Your task to perform on an android device: find photos in the google photos app Image 0: 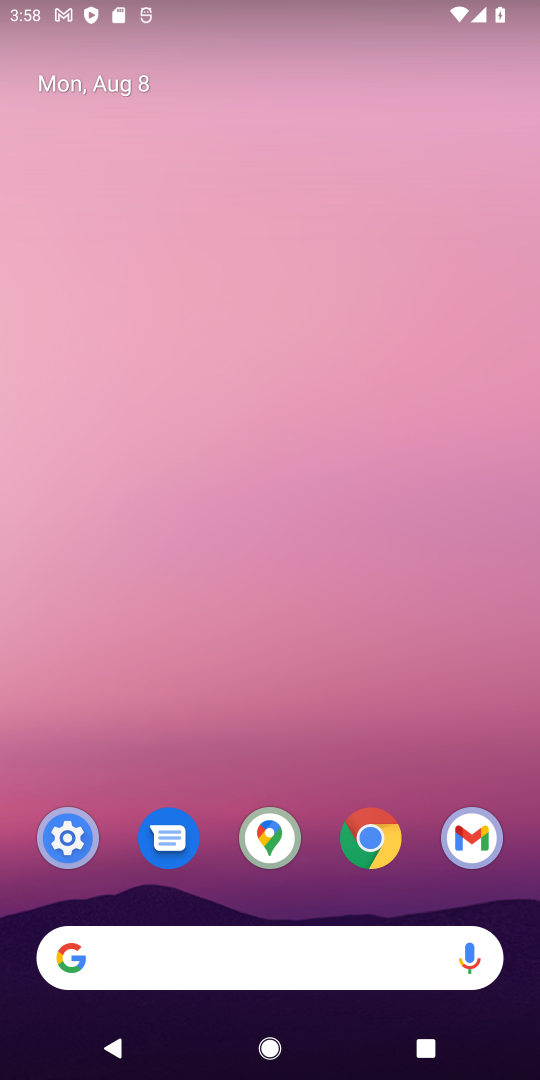
Step 0: drag from (314, 983) to (303, 483)
Your task to perform on an android device: find photos in the google photos app Image 1: 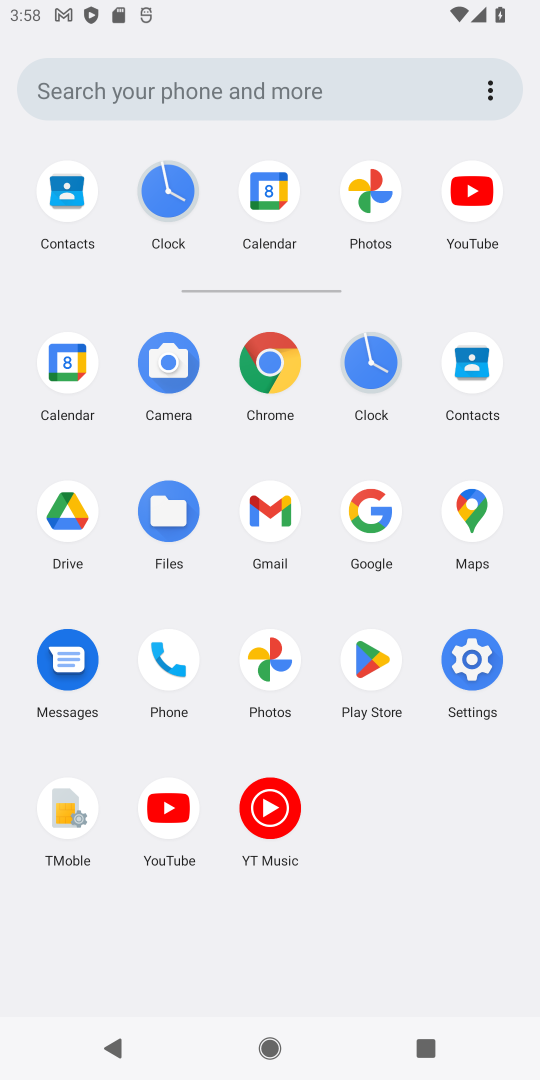
Step 1: click (375, 195)
Your task to perform on an android device: find photos in the google photos app Image 2: 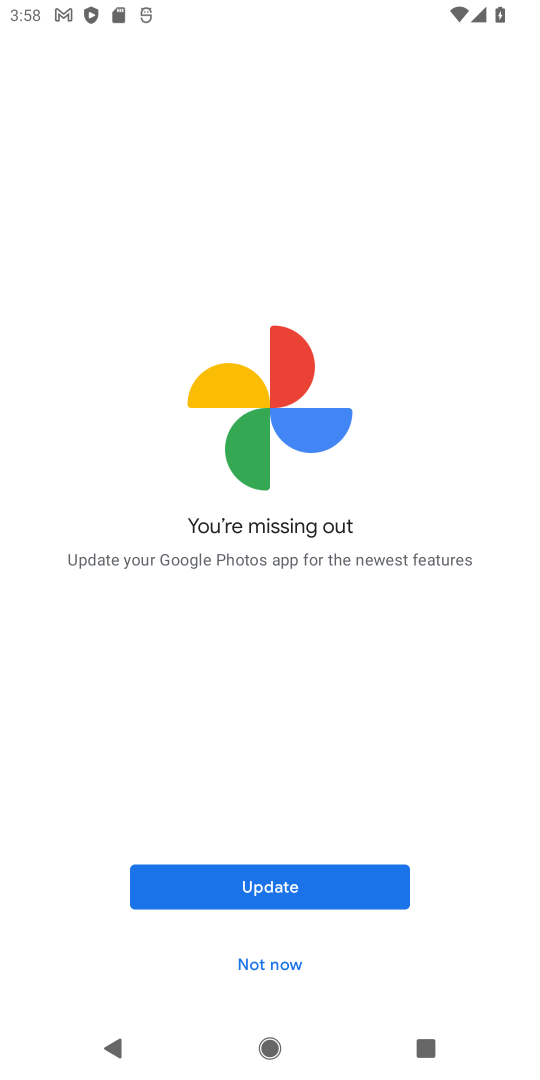
Step 2: click (278, 885)
Your task to perform on an android device: find photos in the google photos app Image 3: 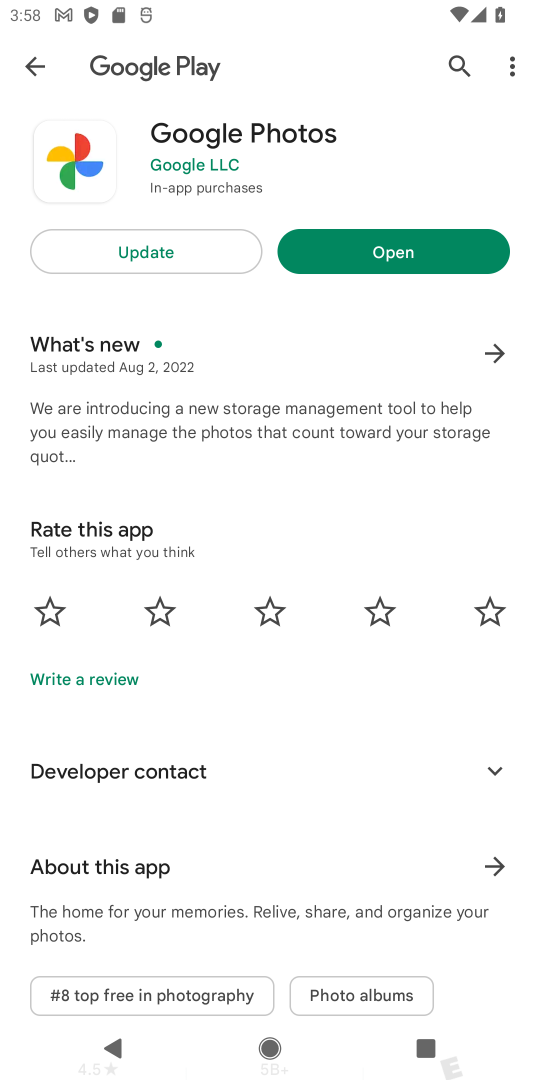
Step 3: click (143, 251)
Your task to perform on an android device: find photos in the google photos app Image 4: 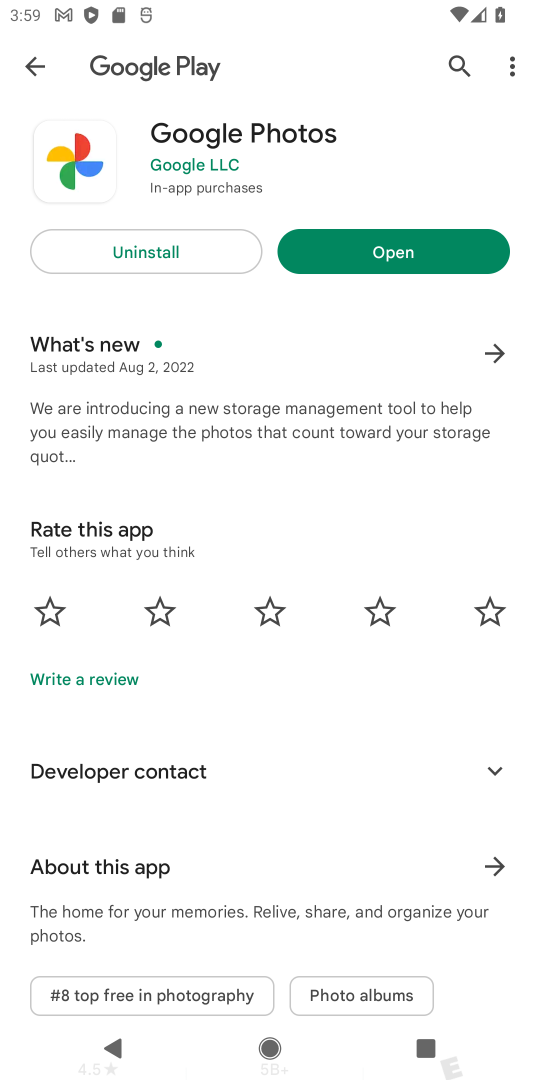
Step 4: click (397, 255)
Your task to perform on an android device: find photos in the google photos app Image 5: 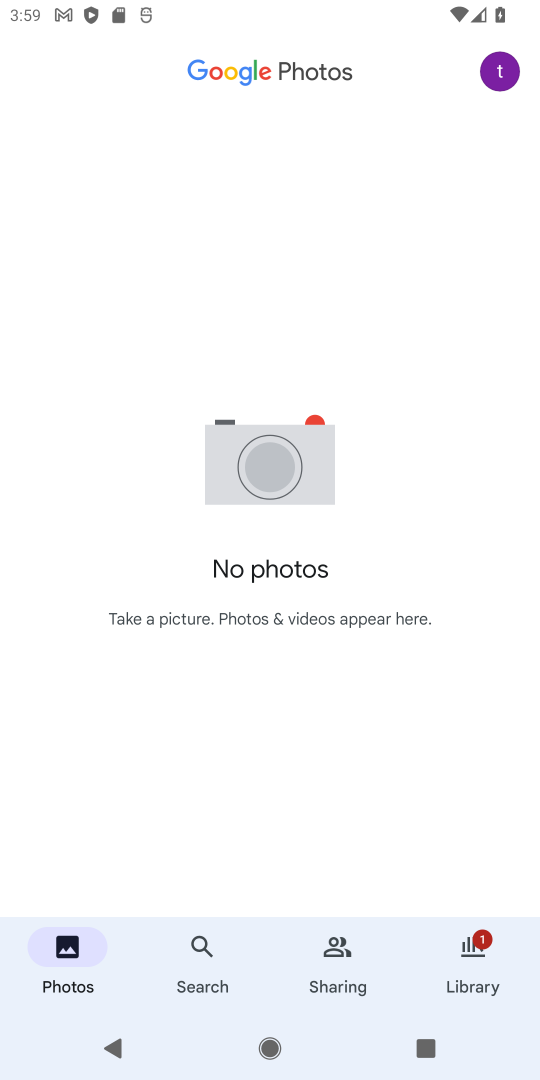
Step 5: click (202, 953)
Your task to perform on an android device: find photos in the google photos app Image 6: 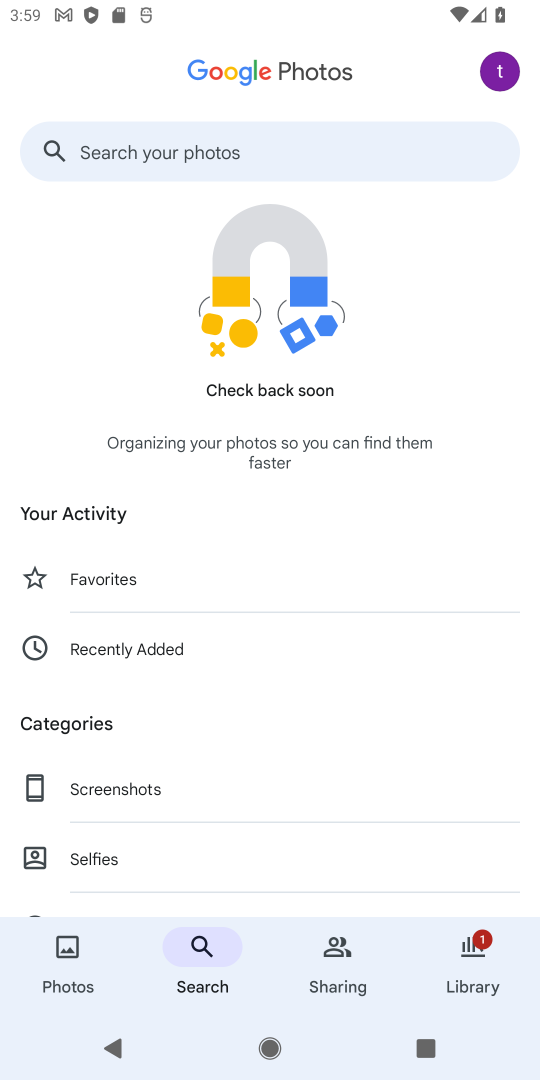
Step 6: click (114, 583)
Your task to perform on an android device: find photos in the google photos app Image 7: 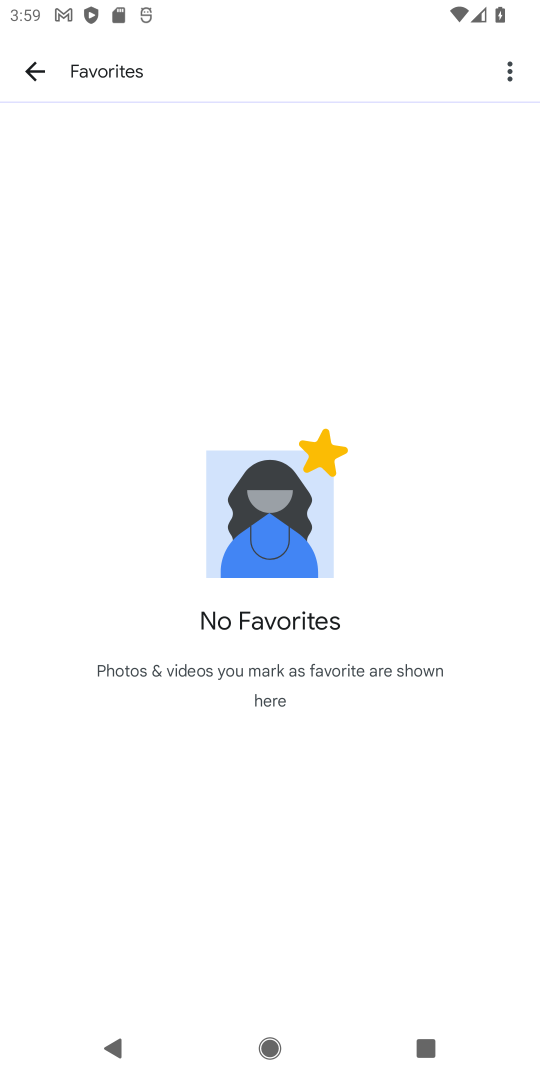
Step 7: task complete